Your task to perform on an android device: Open my contact list Image 0: 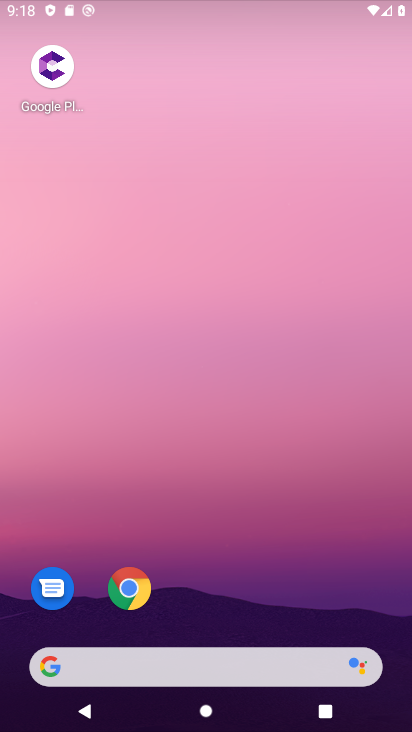
Step 0: drag from (204, 625) to (267, 224)
Your task to perform on an android device: Open my contact list Image 1: 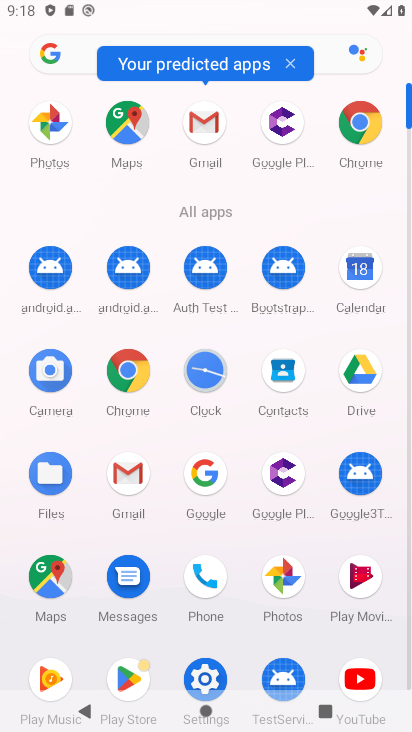
Step 1: click (279, 381)
Your task to perform on an android device: Open my contact list Image 2: 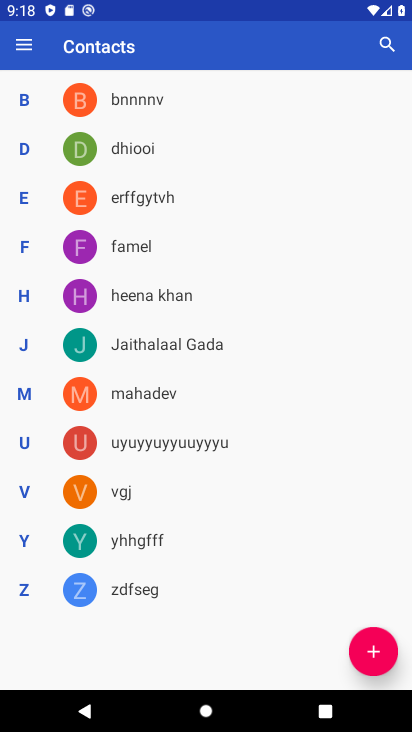
Step 2: task complete